Your task to perform on an android device: What's the weather going to be this weekend? Image 0: 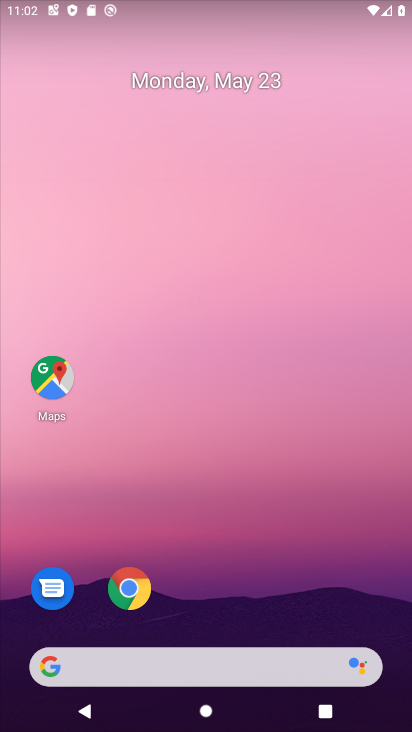
Step 0: drag from (253, 579) to (295, 150)
Your task to perform on an android device: What's the weather going to be this weekend? Image 1: 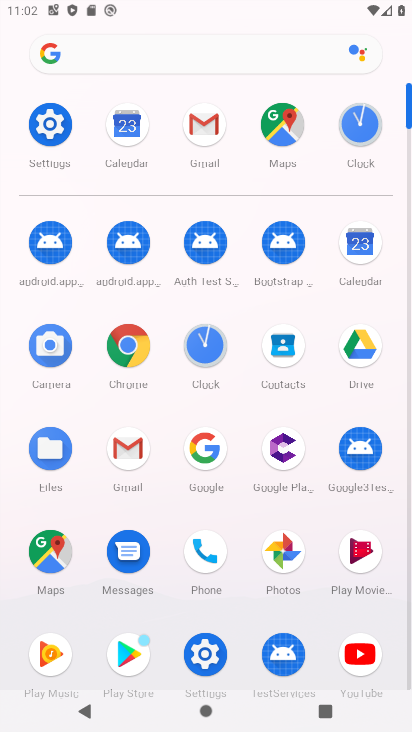
Step 1: click (128, 347)
Your task to perform on an android device: What's the weather going to be this weekend? Image 2: 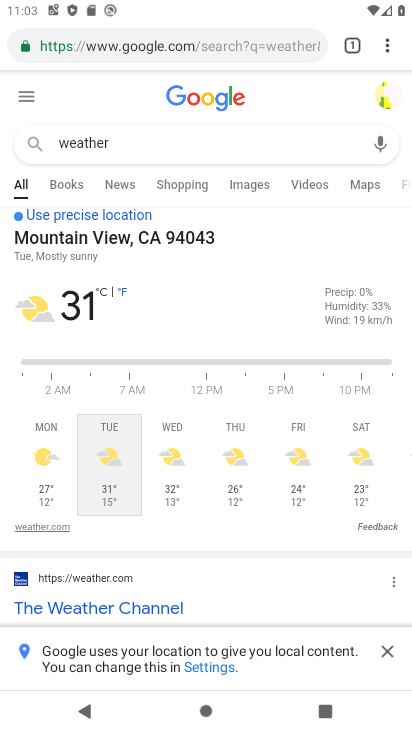
Step 2: click (224, 54)
Your task to perform on an android device: What's the weather going to be this weekend? Image 3: 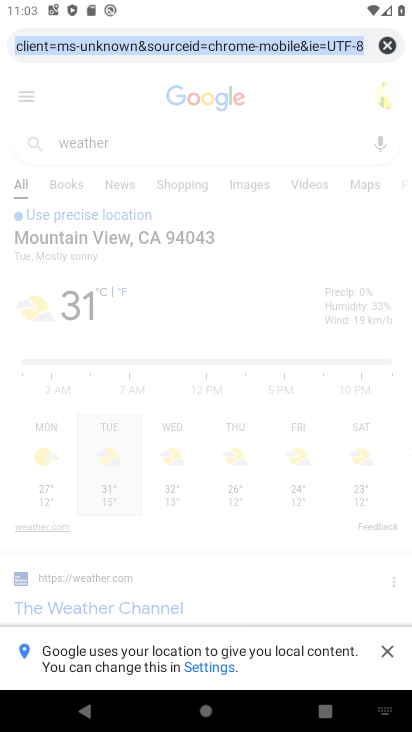
Step 3: click (327, 113)
Your task to perform on an android device: What's the weather going to be this weekend? Image 4: 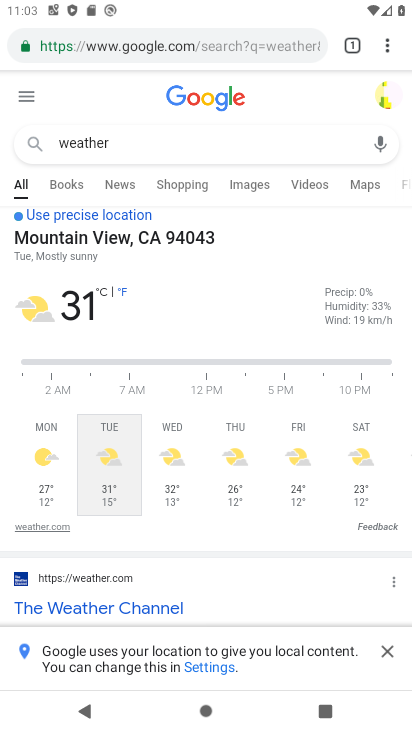
Step 4: task complete